Your task to perform on an android device: turn off data saver in the chrome app Image 0: 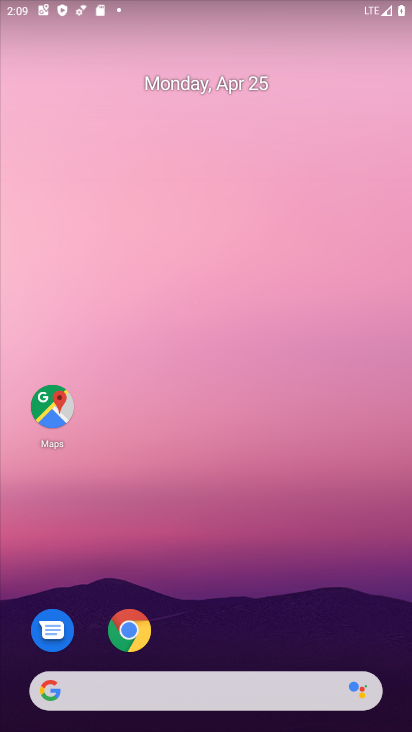
Step 0: drag from (344, 619) to (381, 47)
Your task to perform on an android device: turn off data saver in the chrome app Image 1: 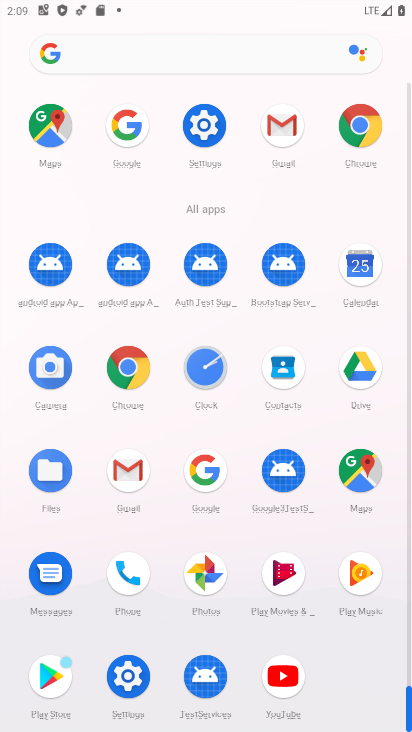
Step 1: click (368, 128)
Your task to perform on an android device: turn off data saver in the chrome app Image 2: 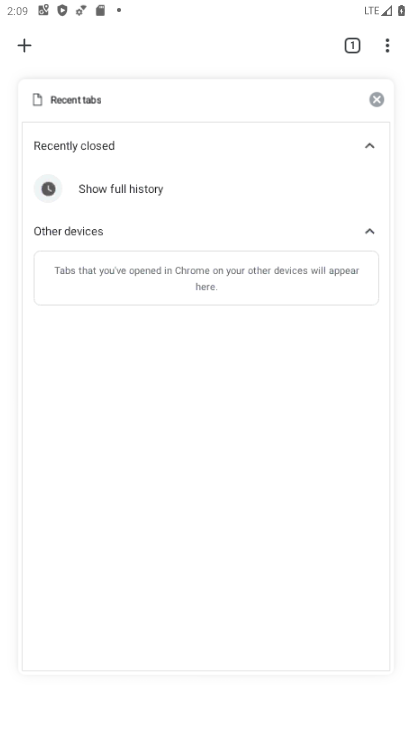
Step 2: click (389, 49)
Your task to perform on an android device: turn off data saver in the chrome app Image 3: 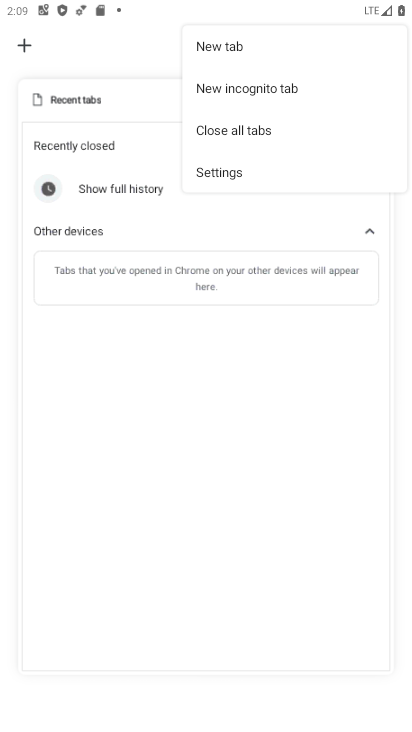
Step 3: click (261, 179)
Your task to perform on an android device: turn off data saver in the chrome app Image 4: 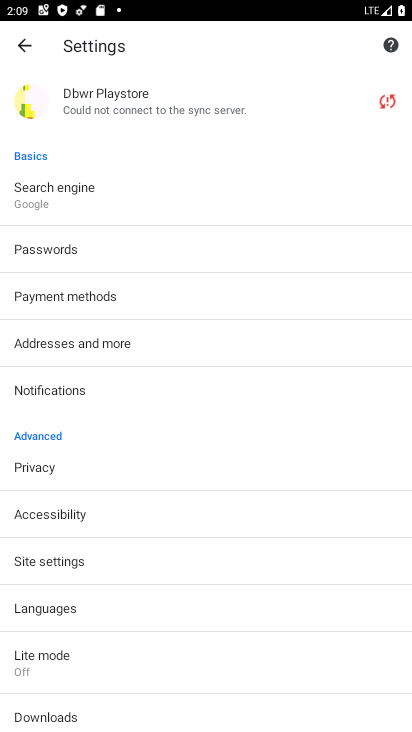
Step 4: drag from (316, 640) to (336, 472)
Your task to perform on an android device: turn off data saver in the chrome app Image 5: 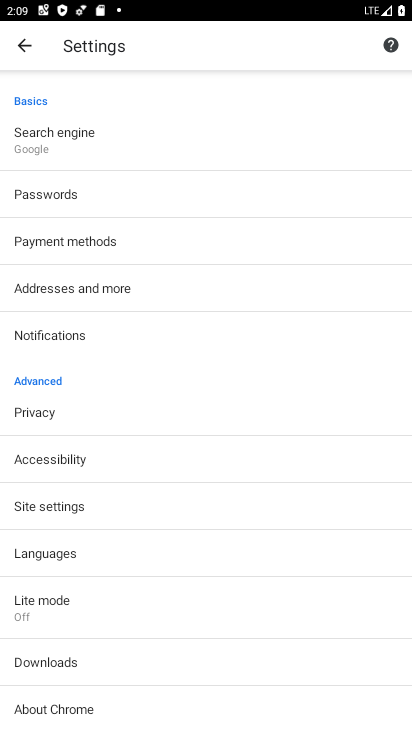
Step 5: drag from (304, 664) to (304, 414)
Your task to perform on an android device: turn off data saver in the chrome app Image 6: 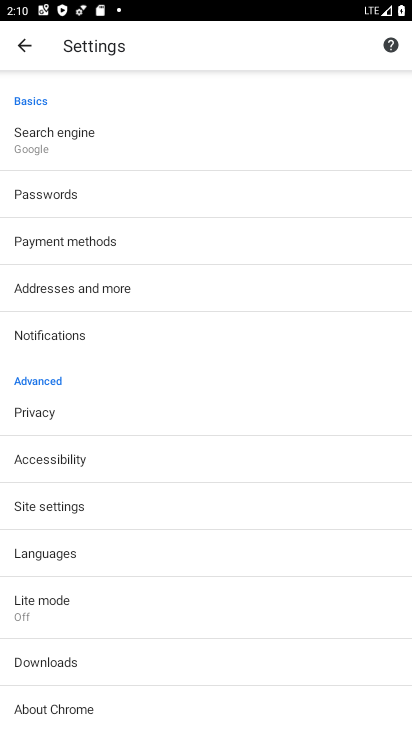
Step 6: drag from (301, 260) to (304, 413)
Your task to perform on an android device: turn off data saver in the chrome app Image 7: 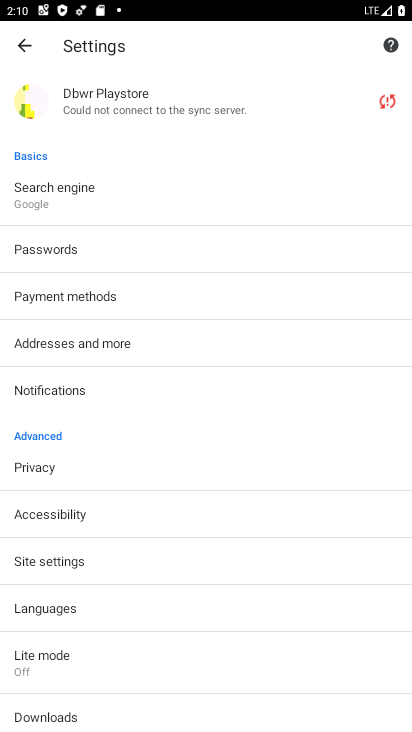
Step 7: drag from (311, 575) to (318, 425)
Your task to perform on an android device: turn off data saver in the chrome app Image 8: 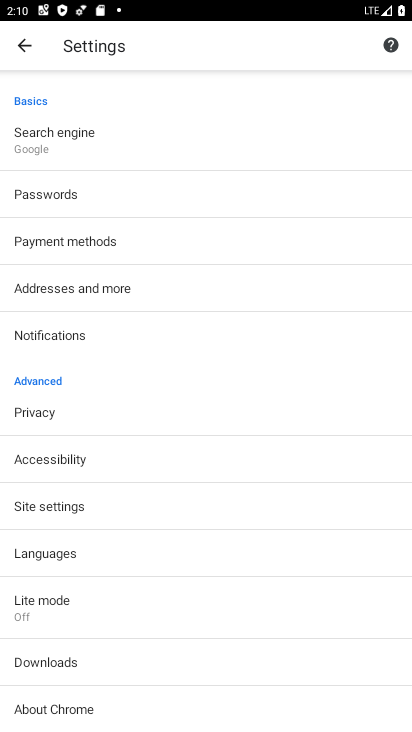
Step 8: click (251, 606)
Your task to perform on an android device: turn off data saver in the chrome app Image 9: 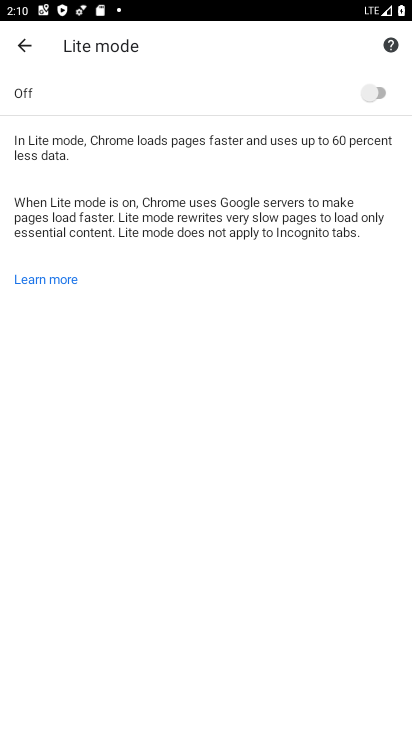
Step 9: task complete